Your task to perform on an android device: toggle airplane mode Image 0: 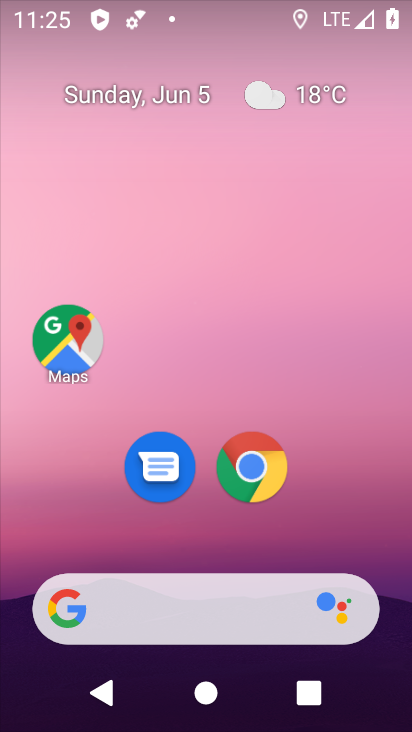
Step 0: drag from (184, 553) to (186, 79)
Your task to perform on an android device: toggle airplane mode Image 1: 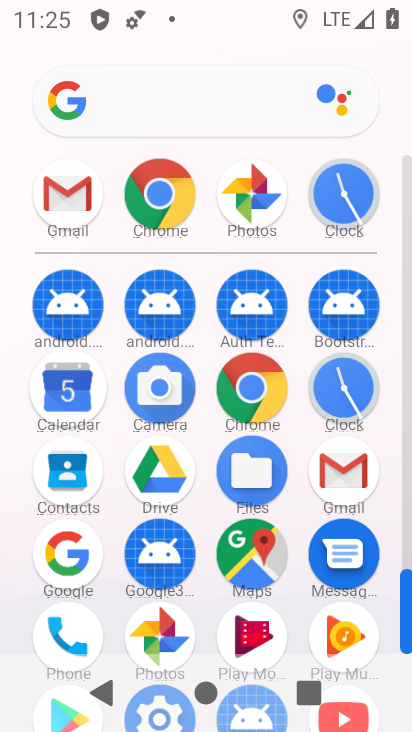
Step 1: drag from (113, 432) to (173, 73)
Your task to perform on an android device: toggle airplane mode Image 2: 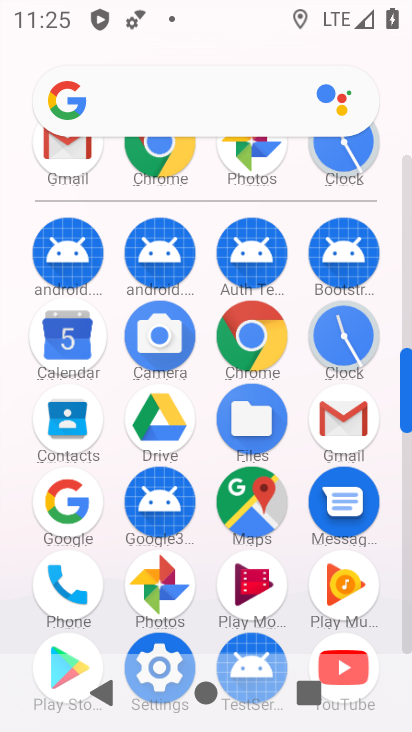
Step 2: click (162, 653)
Your task to perform on an android device: toggle airplane mode Image 3: 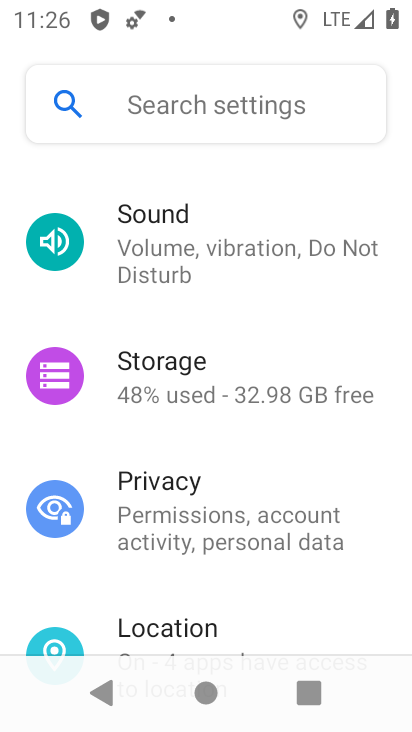
Step 3: drag from (227, 327) to (164, 621)
Your task to perform on an android device: toggle airplane mode Image 4: 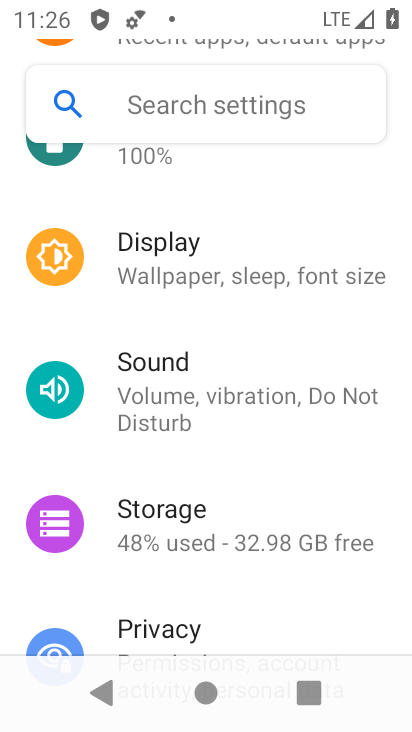
Step 4: drag from (129, 185) to (172, 705)
Your task to perform on an android device: toggle airplane mode Image 5: 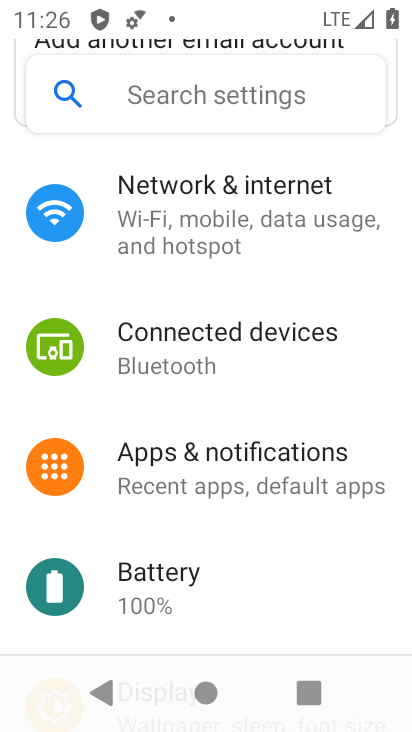
Step 5: click (202, 262)
Your task to perform on an android device: toggle airplane mode Image 6: 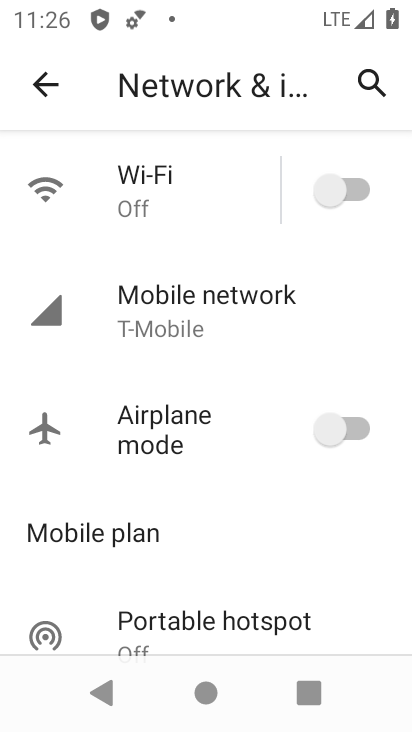
Step 6: click (340, 422)
Your task to perform on an android device: toggle airplane mode Image 7: 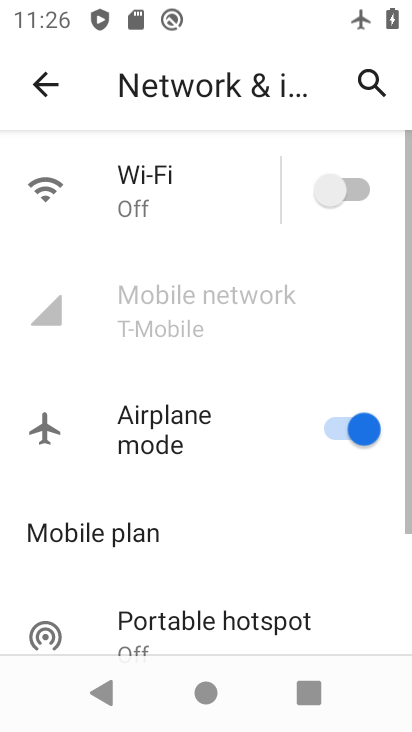
Step 7: task complete